Your task to perform on an android device: change alarm snooze length Image 0: 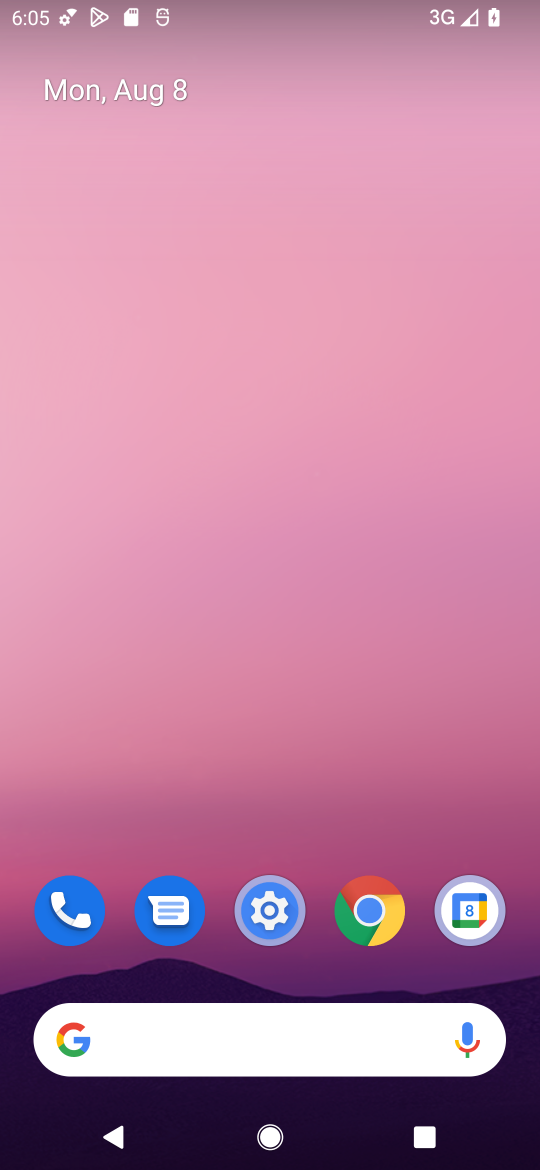
Step 0: drag from (259, 783) to (301, 134)
Your task to perform on an android device: change alarm snooze length Image 1: 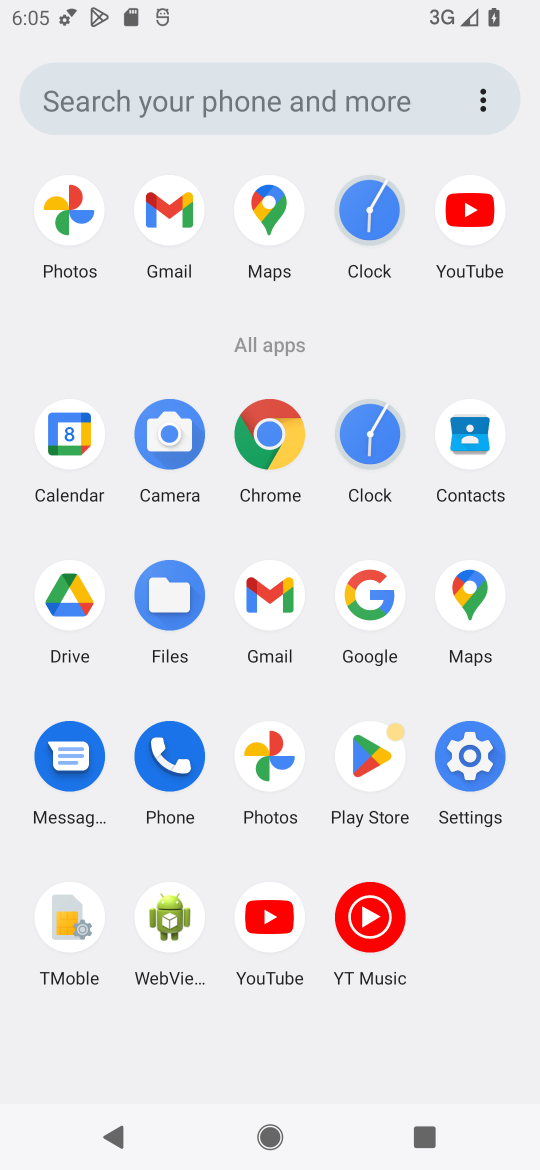
Step 1: click (371, 197)
Your task to perform on an android device: change alarm snooze length Image 2: 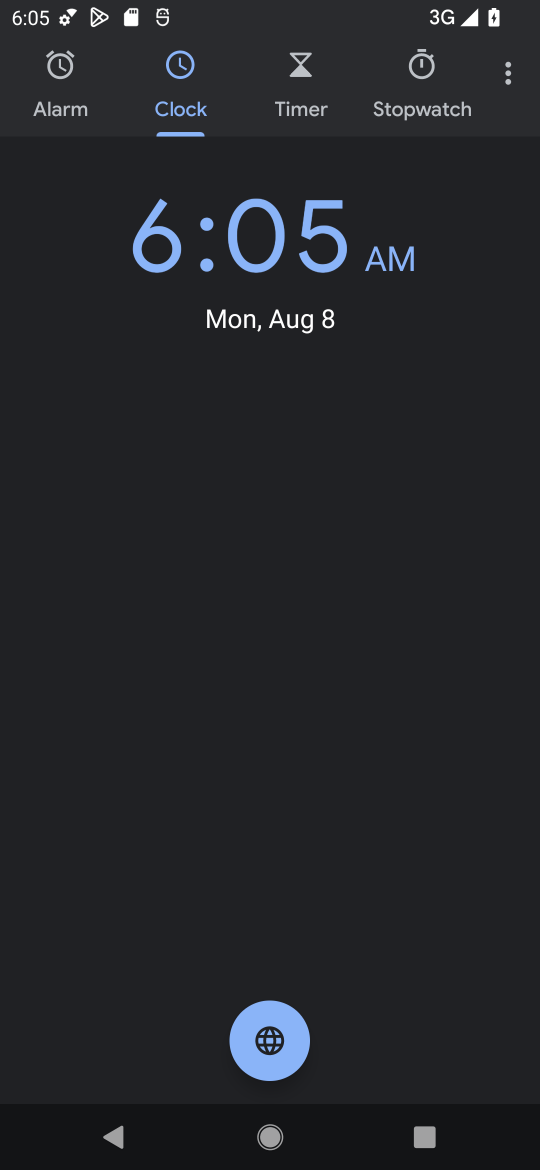
Step 2: click (508, 83)
Your task to perform on an android device: change alarm snooze length Image 3: 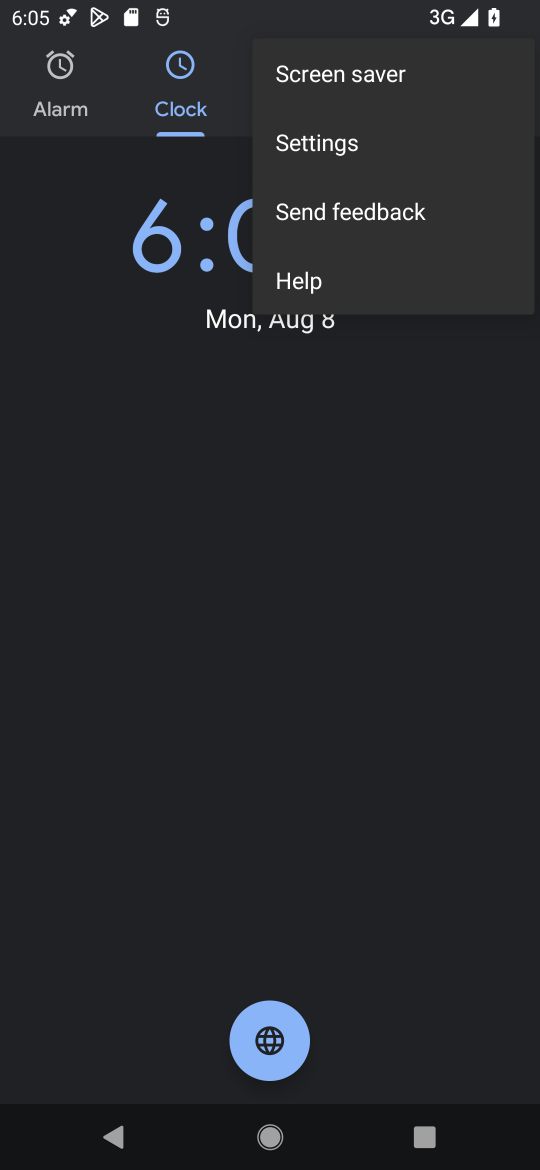
Step 3: click (387, 152)
Your task to perform on an android device: change alarm snooze length Image 4: 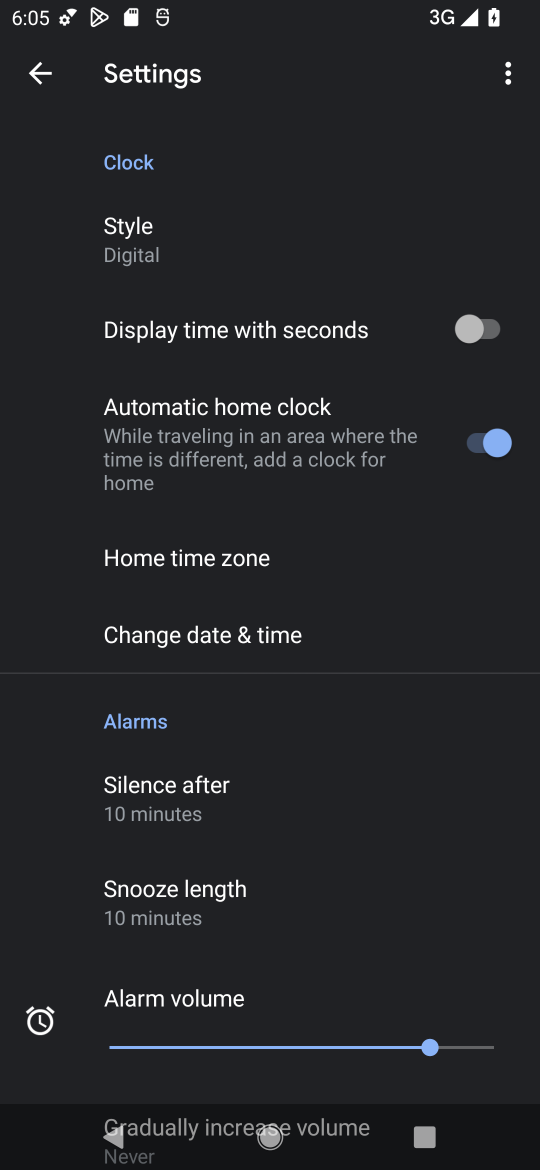
Step 4: click (203, 891)
Your task to perform on an android device: change alarm snooze length Image 5: 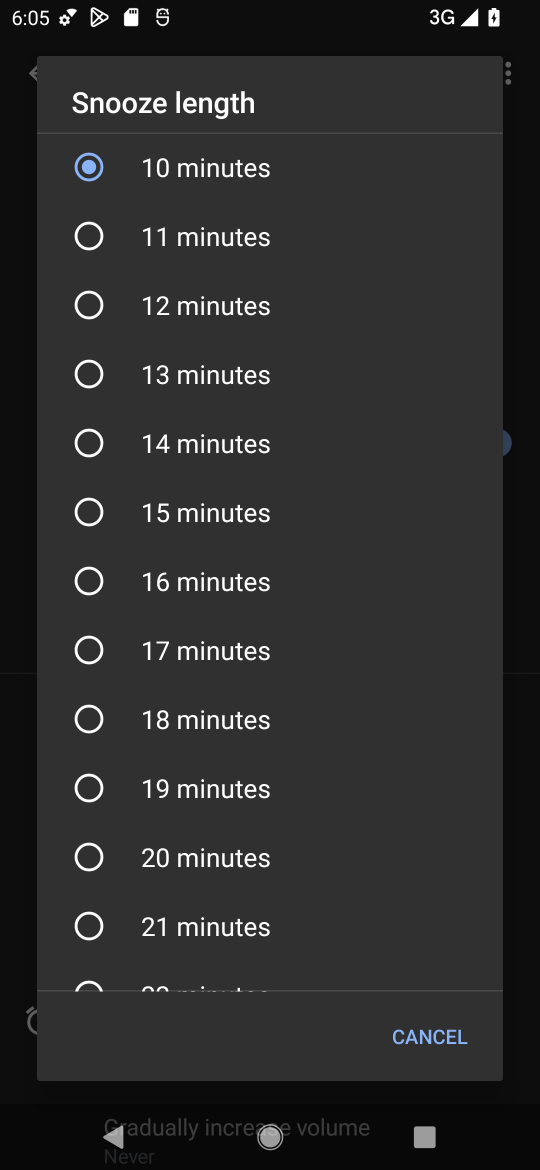
Step 5: click (167, 235)
Your task to perform on an android device: change alarm snooze length Image 6: 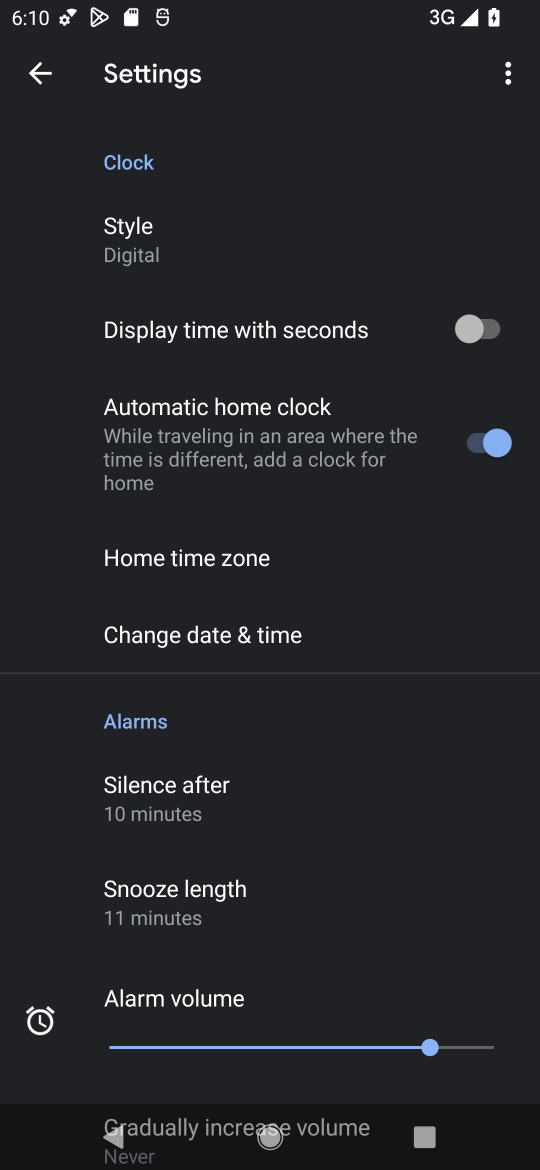
Step 6: task complete